Your task to perform on an android device: Go to Maps Image 0: 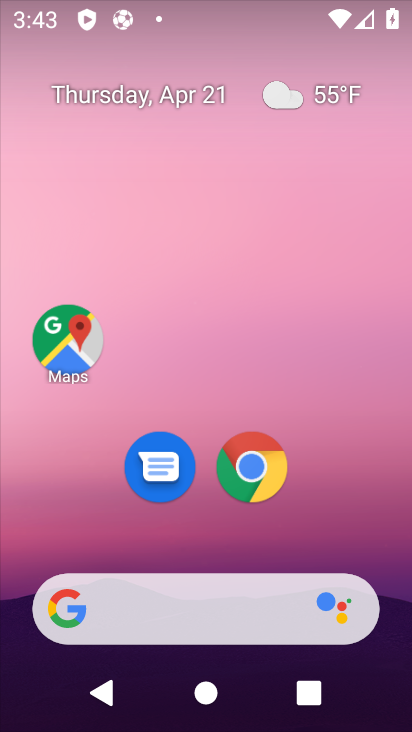
Step 0: drag from (281, 667) to (226, 294)
Your task to perform on an android device: Go to Maps Image 1: 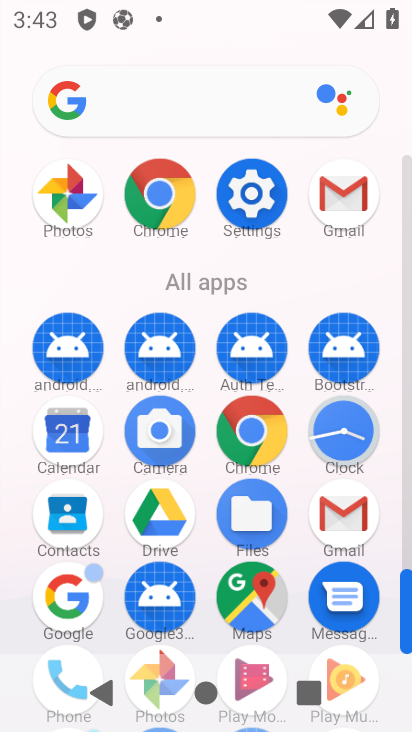
Step 1: drag from (215, 599) to (246, 303)
Your task to perform on an android device: Go to Maps Image 2: 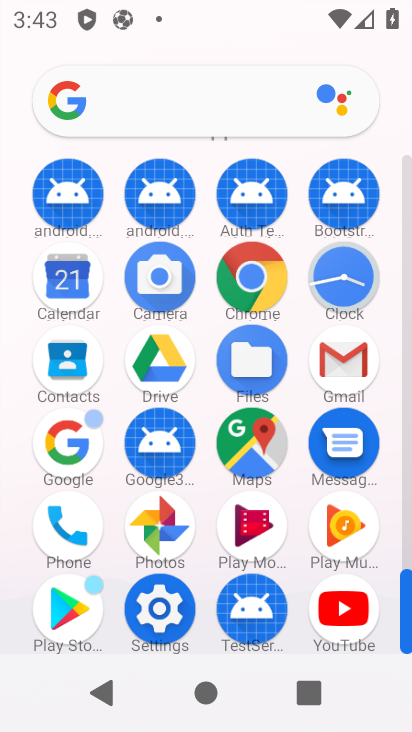
Step 2: drag from (193, 543) to (218, 263)
Your task to perform on an android device: Go to Maps Image 3: 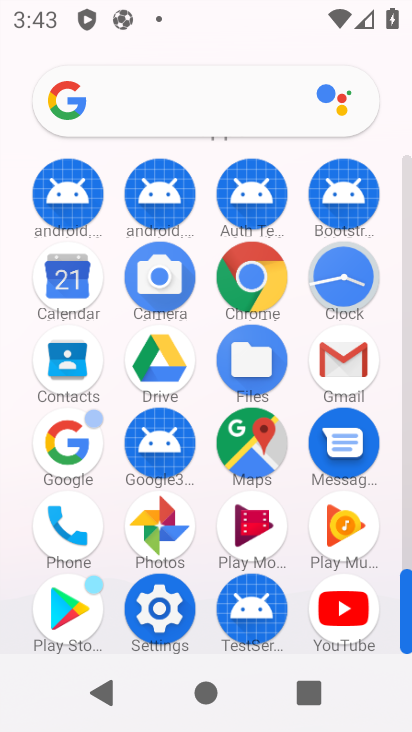
Step 3: click (244, 435)
Your task to perform on an android device: Go to Maps Image 4: 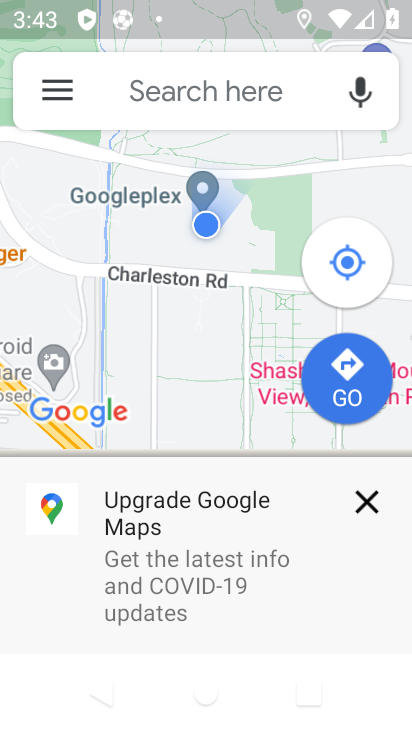
Step 4: click (360, 491)
Your task to perform on an android device: Go to Maps Image 5: 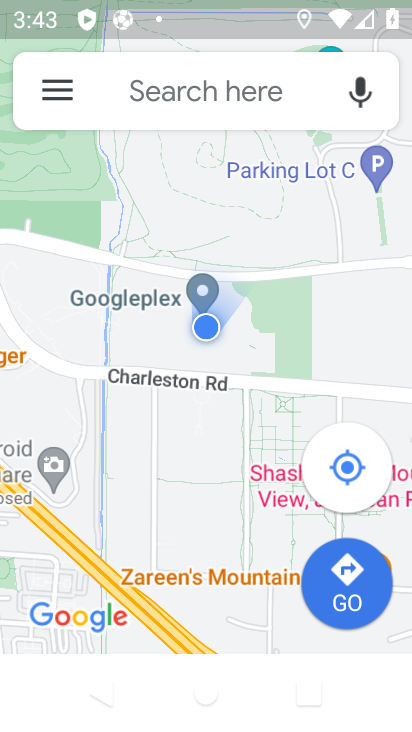
Step 5: task complete